Your task to perform on an android device: Open Google Chrome and click the shortcut for Amazon.com Image 0: 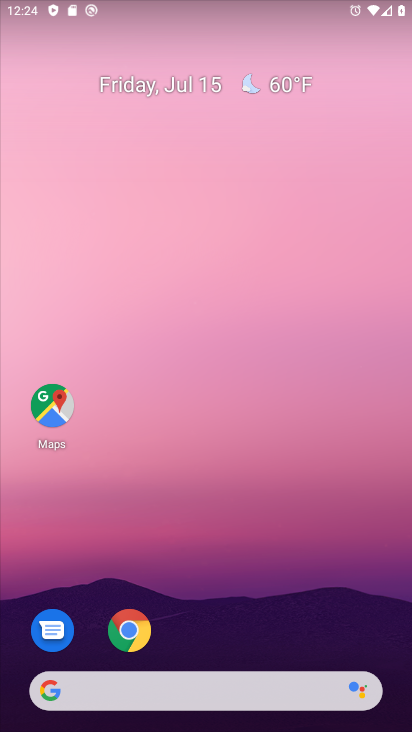
Step 0: click (129, 630)
Your task to perform on an android device: Open Google Chrome and click the shortcut for Amazon.com Image 1: 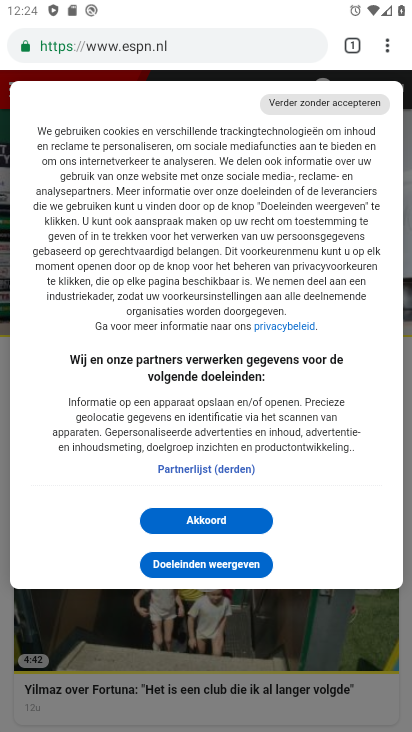
Step 1: click (347, 50)
Your task to perform on an android device: Open Google Chrome and click the shortcut for Amazon.com Image 2: 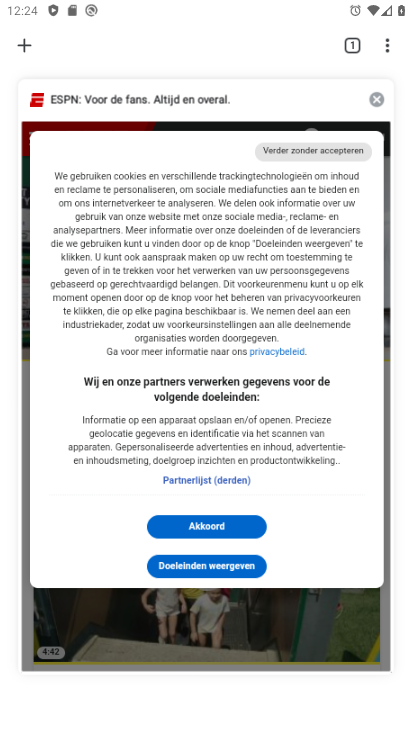
Step 2: click (22, 51)
Your task to perform on an android device: Open Google Chrome and click the shortcut for Amazon.com Image 3: 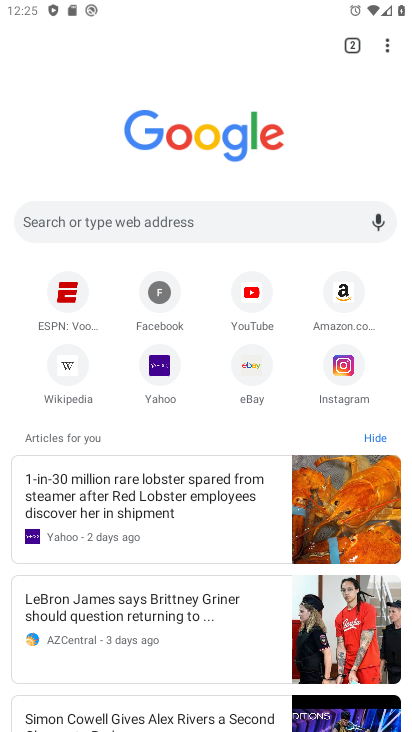
Step 3: click (347, 294)
Your task to perform on an android device: Open Google Chrome and click the shortcut for Amazon.com Image 4: 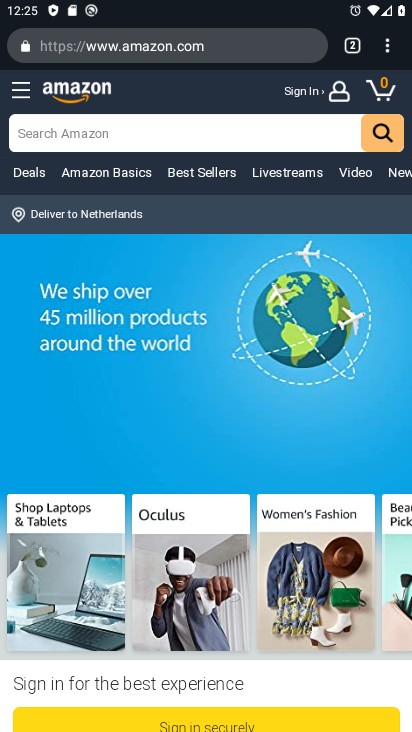
Step 4: task complete